Your task to perform on an android device: turn on showing notifications on the lock screen Image 0: 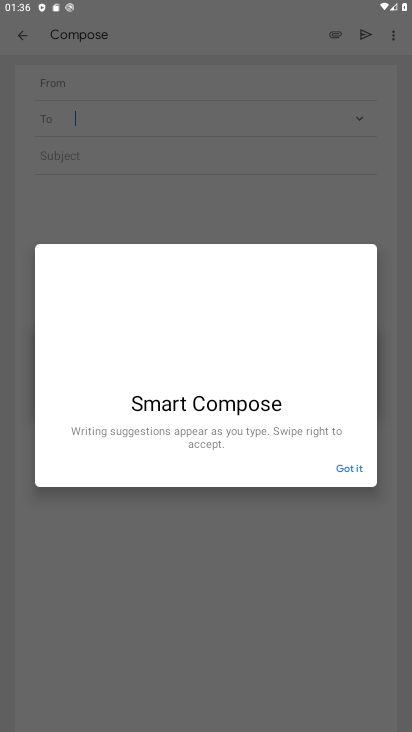
Step 0: press home button
Your task to perform on an android device: turn on showing notifications on the lock screen Image 1: 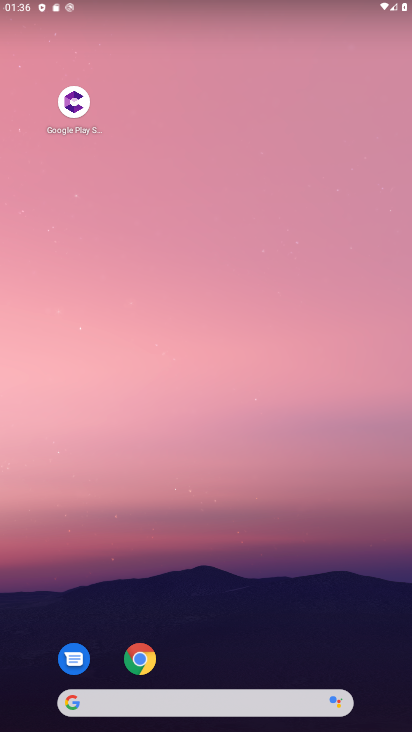
Step 1: drag from (203, 634) to (221, 155)
Your task to perform on an android device: turn on showing notifications on the lock screen Image 2: 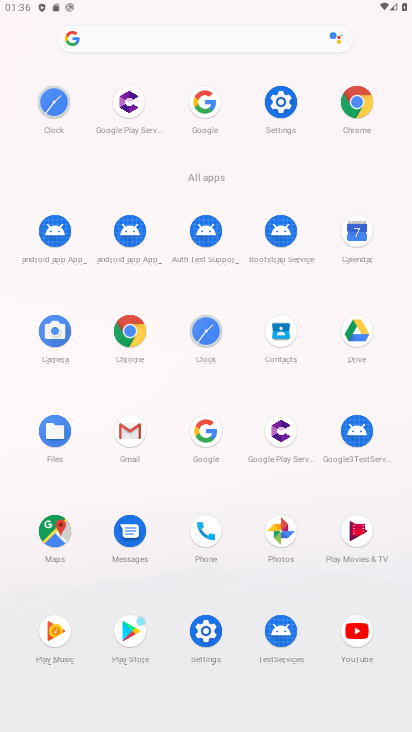
Step 2: click (278, 101)
Your task to perform on an android device: turn on showing notifications on the lock screen Image 3: 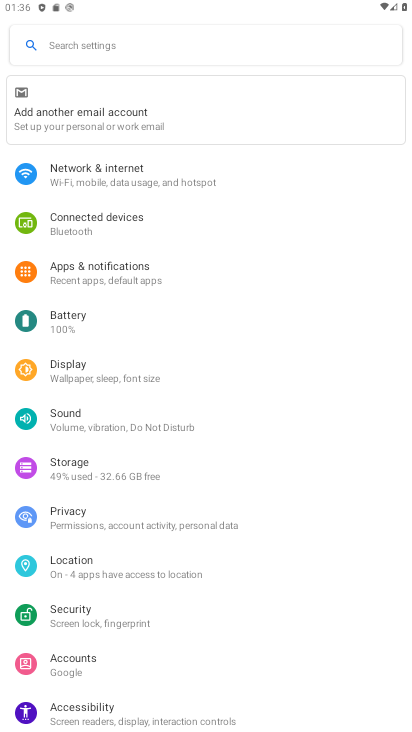
Step 3: click (108, 268)
Your task to perform on an android device: turn on showing notifications on the lock screen Image 4: 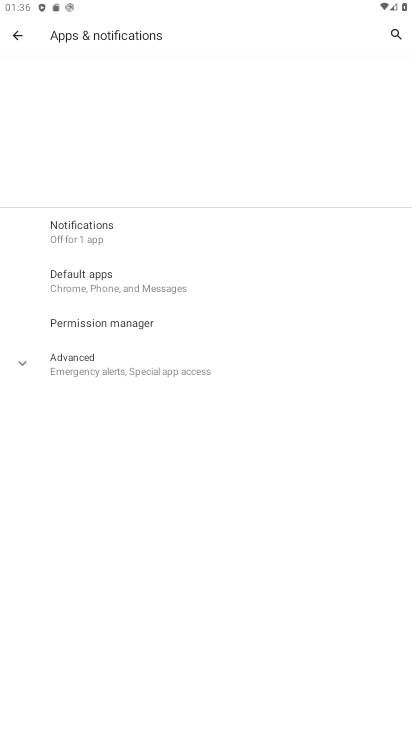
Step 4: click (81, 230)
Your task to perform on an android device: turn on showing notifications on the lock screen Image 5: 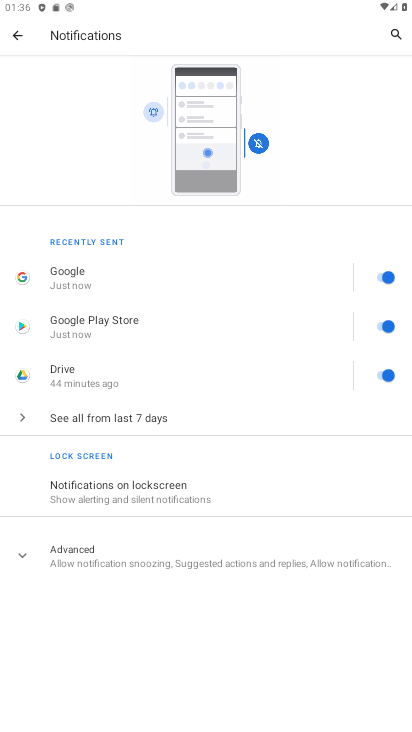
Step 5: click (123, 493)
Your task to perform on an android device: turn on showing notifications on the lock screen Image 6: 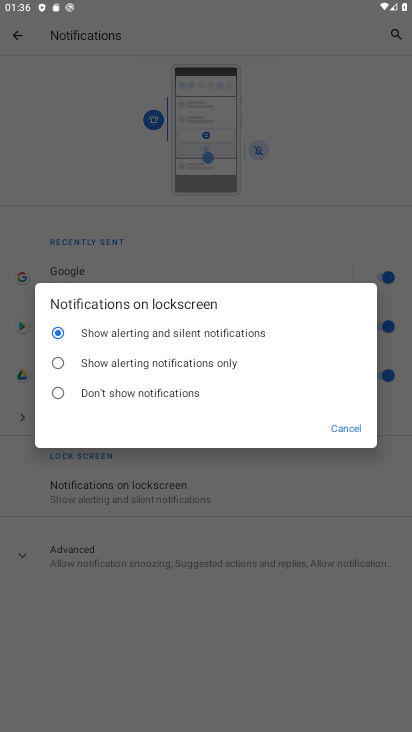
Step 6: task complete